Your task to perform on an android device: Is it going to rain this weekend? Image 0: 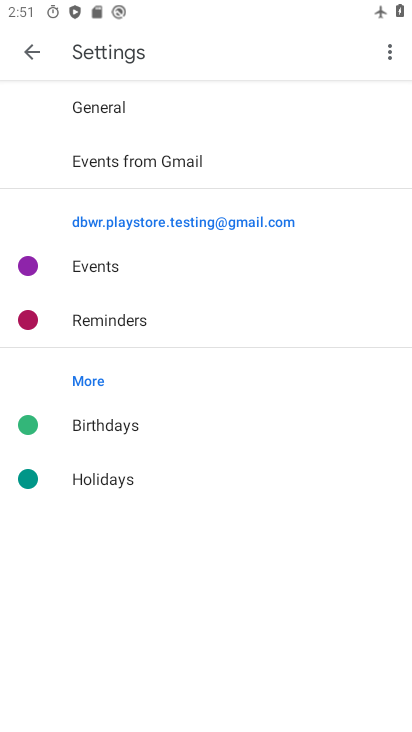
Step 0: press home button
Your task to perform on an android device: Is it going to rain this weekend? Image 1: 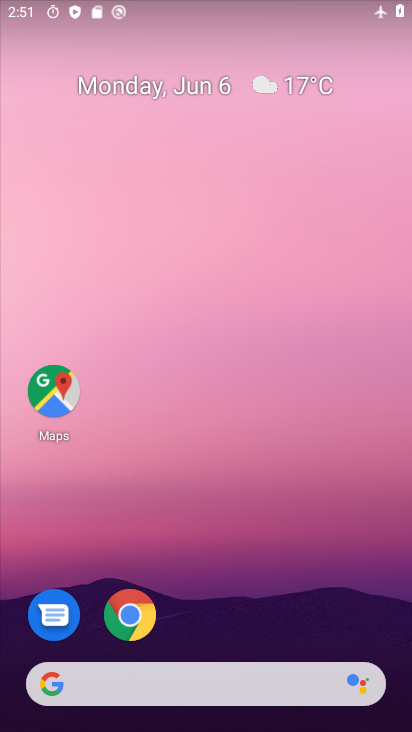
Step 1: click (275, 85)
Your task to perform on an android device: Is it going to rain this weekend? Image 2: 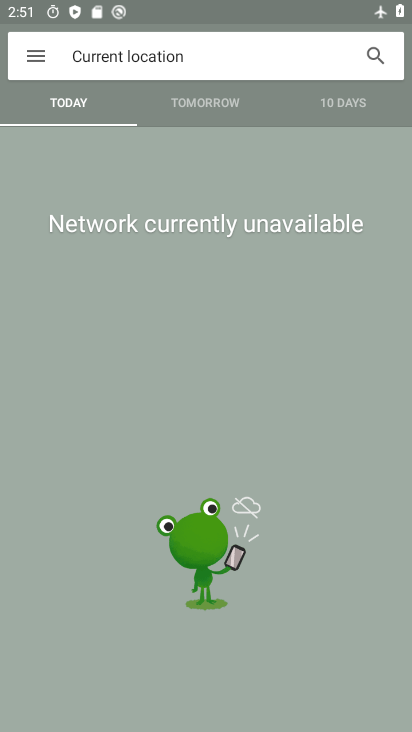
Step 2: click (352, 94)
Your task to perform on an android device: Is it going to rain this weekend? Image 3: 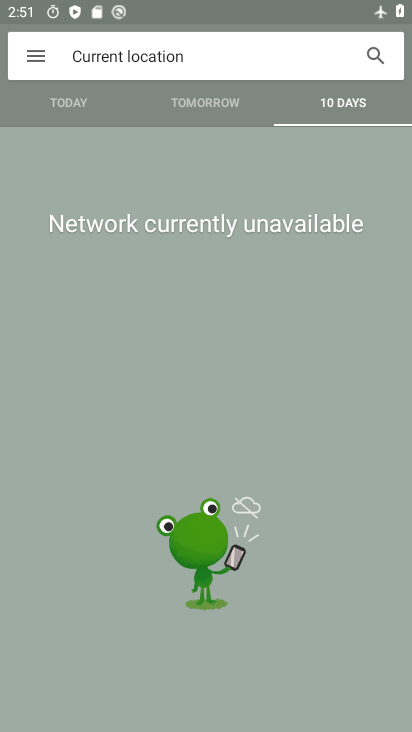
Step 3: task complete